Your task to perform on an android device: What's the weather today? Image 0: 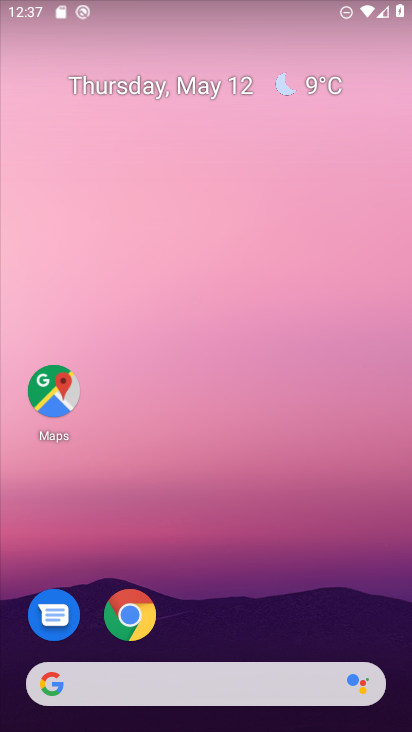
Step 0: click (310, 84)
Your task to perform on an android device: What's the weather today? Image 1: 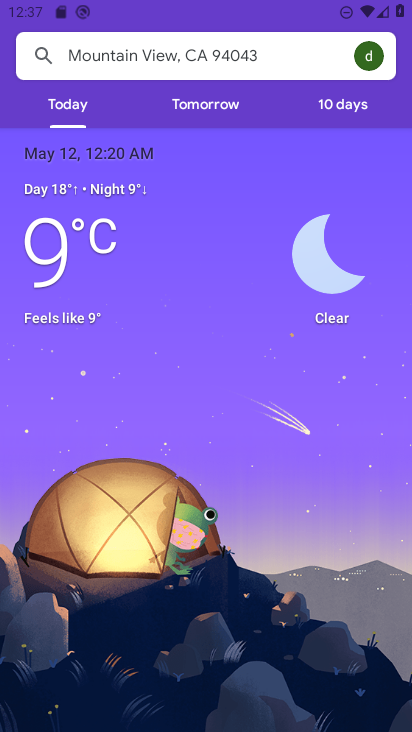
Step 1: task complete